Your task to perform on an android device: Turn on the flashlight Image 0: 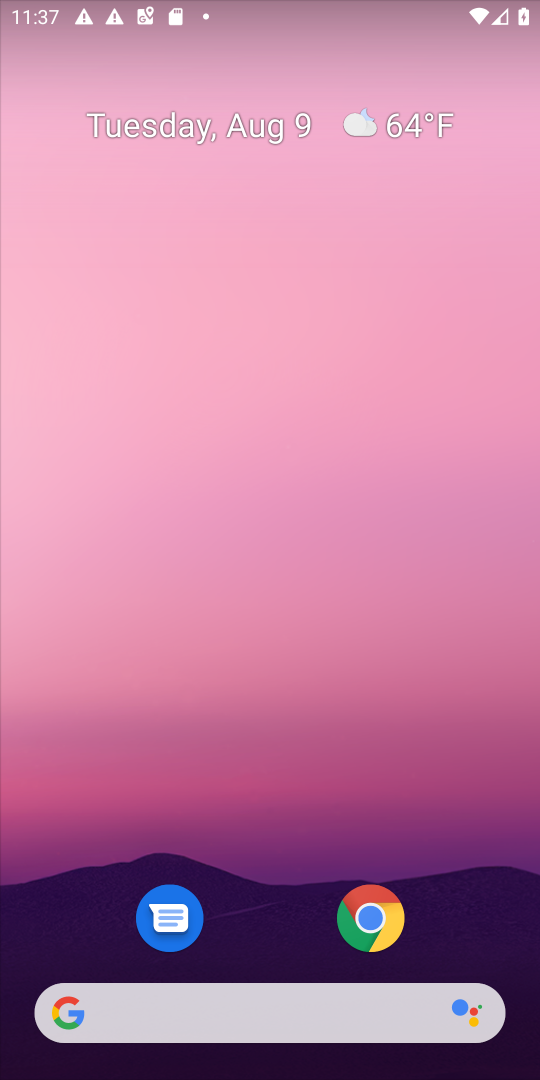
Step 0: drag from (235, 948) to (296, 245)
Your task to perform on an android device: Turn on the flashlight Image 1: 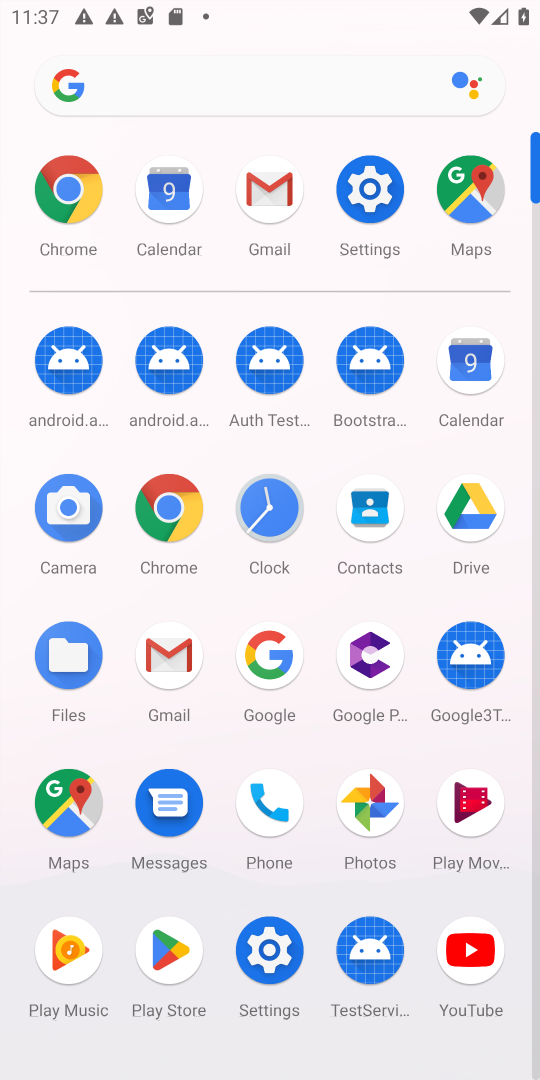
Step 1: click (273, 940)
Your task to perform on an android device: Turn on the flashlight Image 2: 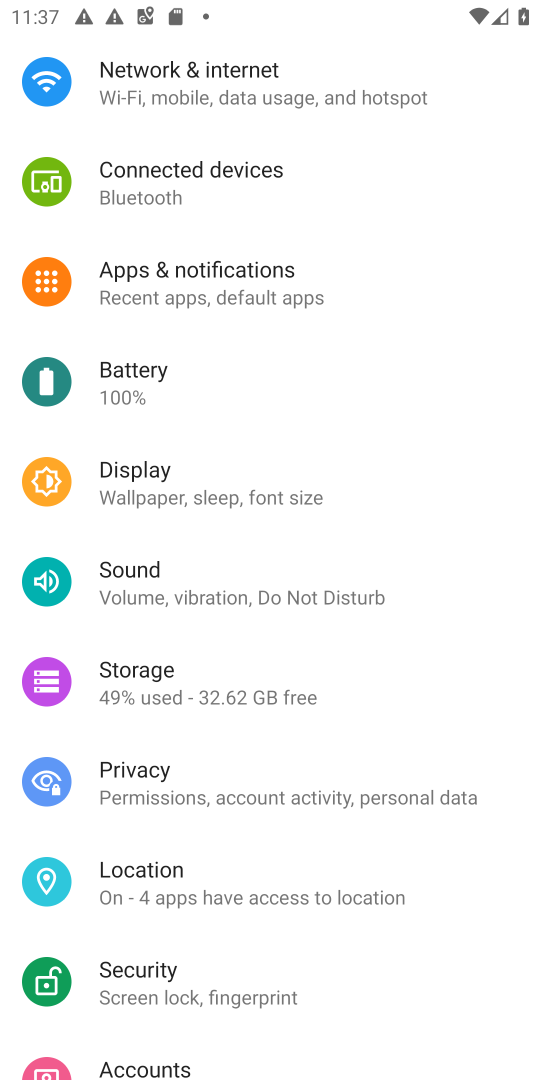
Step 2: click (157, 470)
Your task to perform on an android device: Turn on the flashlight Image 3: 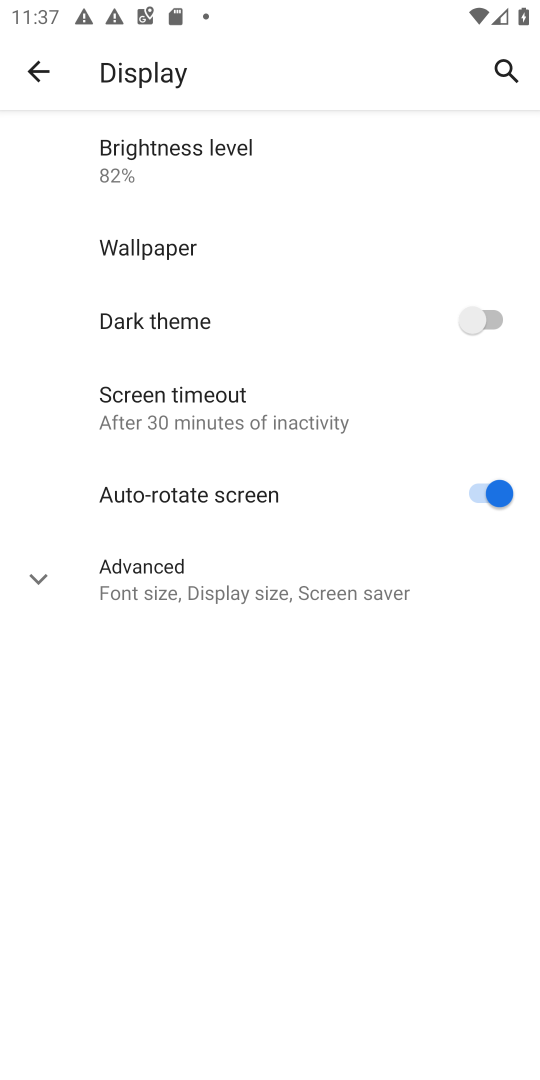
Step 3: click (204, 387)
Your task to perform on an android device: Turn on the flashlight Image 4: 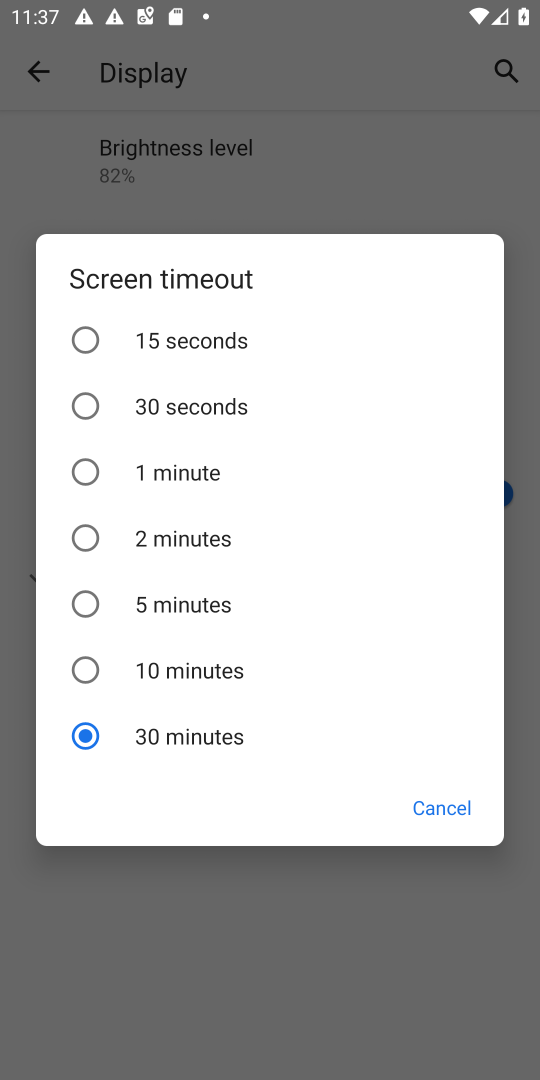
Step 4: task complete